Your task to perform on an android device: Open Maps and search for coffee Image 0: 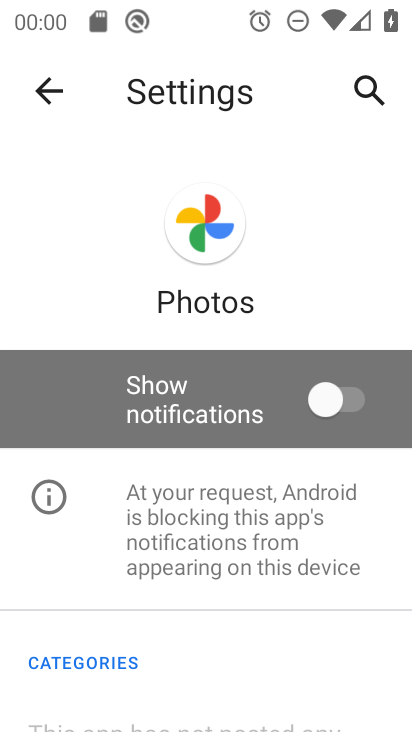
Step 0: press home button
Your task to perform on an android device: Open Maps and search for coffee Image 1: 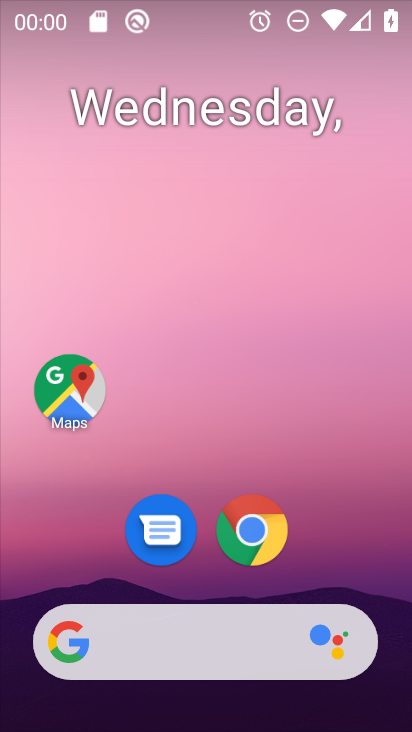
Step 1: click (71, 394)
Your task to perform on an android device: Open Maps and search for coffee Image 2: 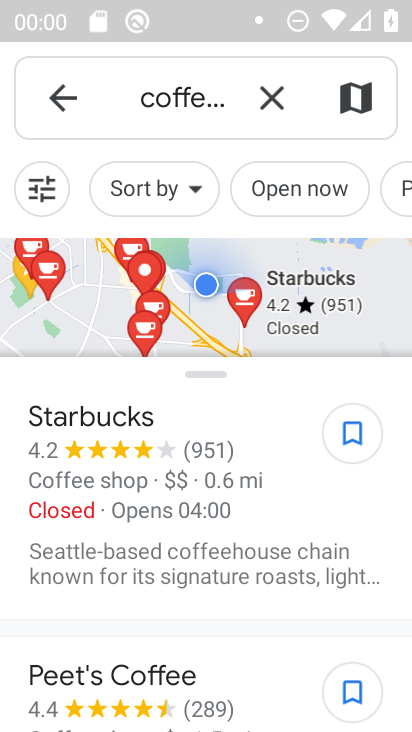
Step 2: click (198, 107)
Your task to perform on an android device: Open Maps and search for coffee Image 3: 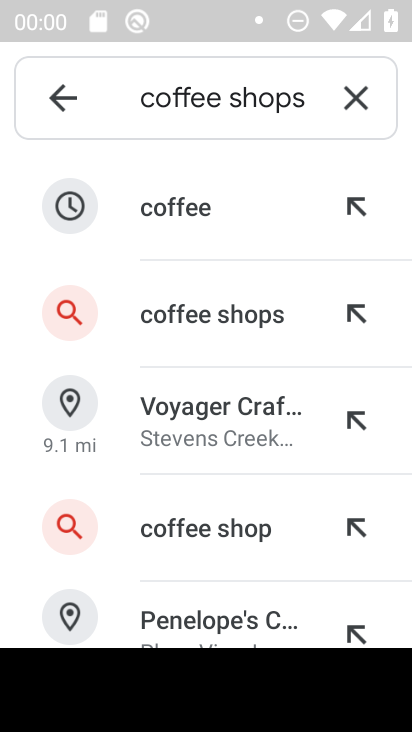
Step 3: click (191, 212)
Your task to perform on an android device: Open Maps and search for coffee Image 4: 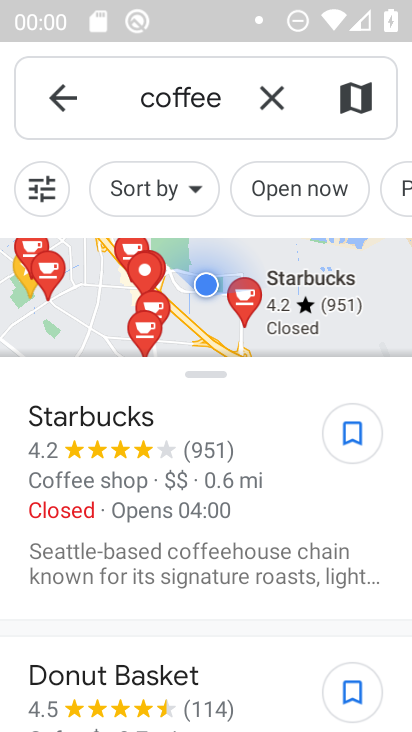
Step 4: task complete